Your task to perform on an android device: Go to network settings Image 0: 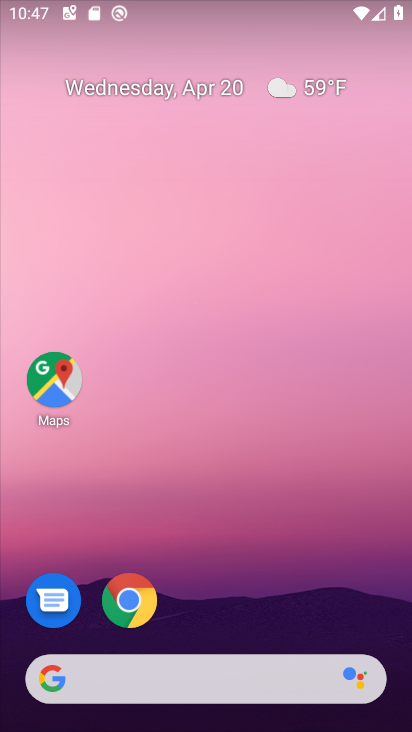
Step 0: drag from (283, 581) to (263, 62)
Your task to perform on an android device: Go to network settings Image 1: 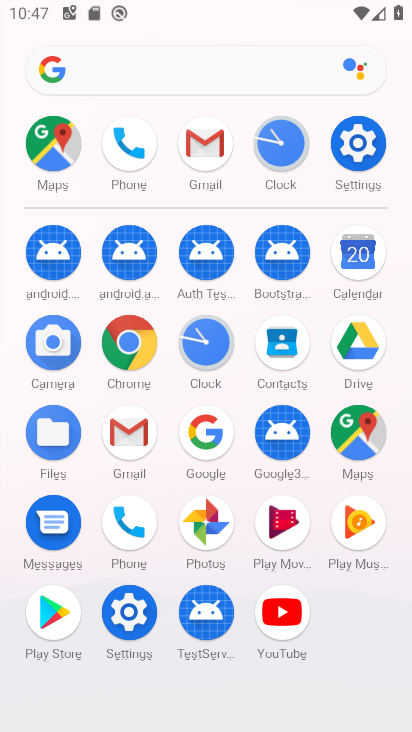
Step 1: click (358, 145)
Your task to perform on an android device: Go to network settings Image 2: 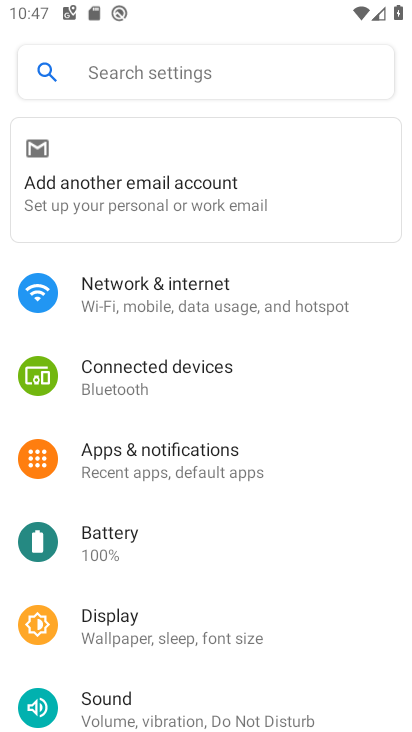
Step 2: click (241, 286)
Your task to perform on an android device: Go to network settings Image 3: 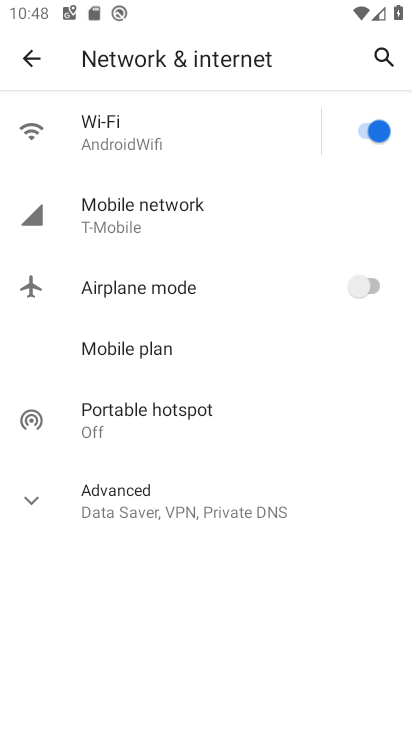
Step 3: task complete